Your task to perform on an android device: install app "Fetch Rewards" Image 0: 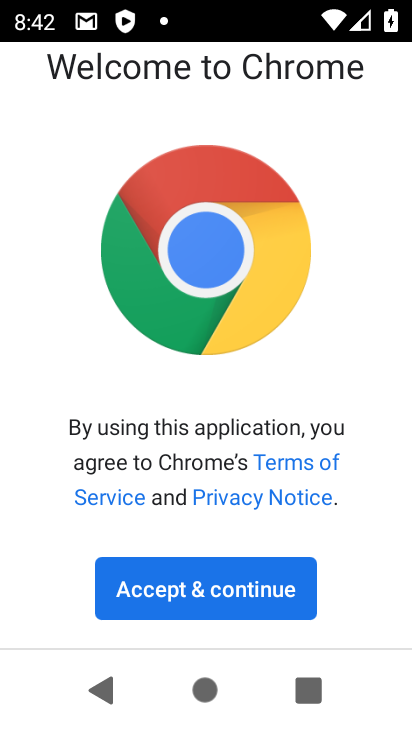
Step 0: press back button
Your task to perform on an android device: install app "Fetch Rewards" Image 1: 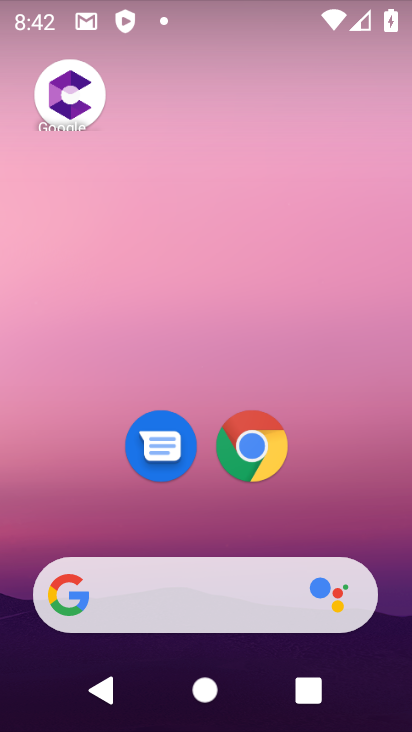
Step 1: drag from (202, 475) to (258, 3)
Your task to perform on an android device: install app "Fetch Rewards" Image 2: 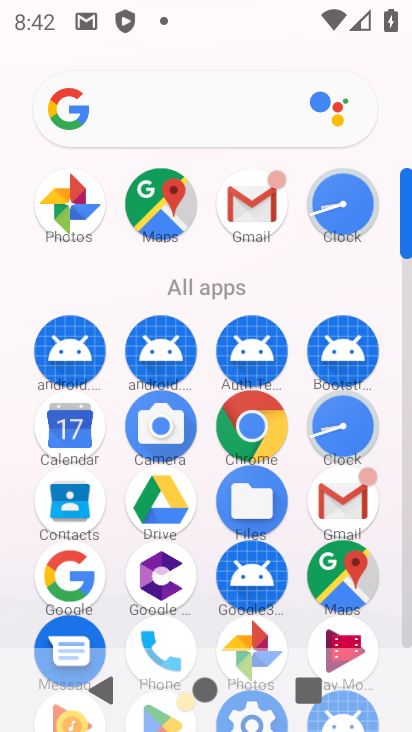
Step 2: drag from (220, 569) to (269, 2)
Your task to perform on an android device: install app "Fetch Rewards" Image 3: 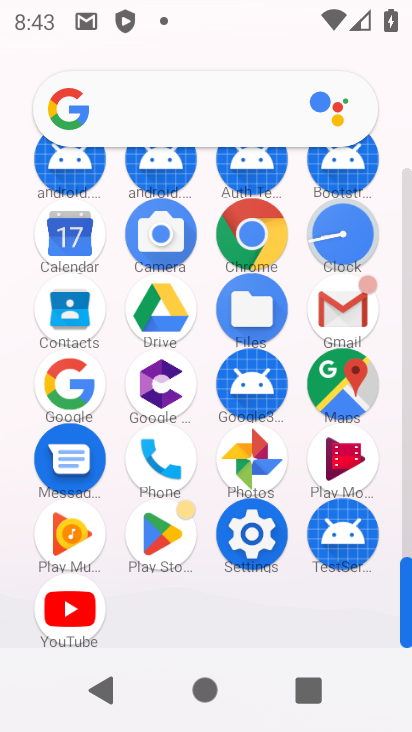
Step 3: click (172, 536)
Your task to perform on an android device: install app "Fetch Rewards" Image 4: 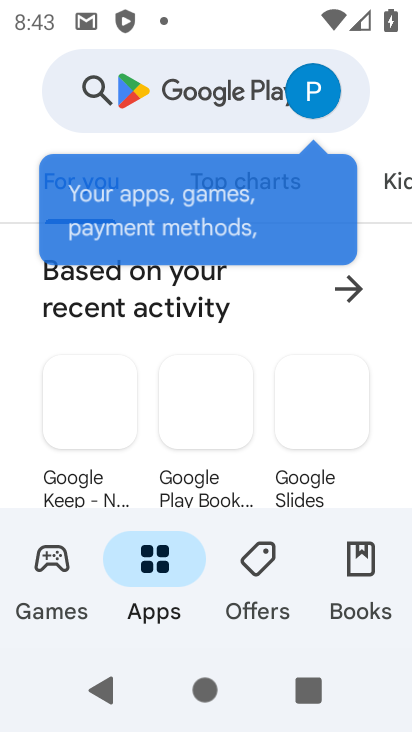
Step 4: click (207, 96)
Your task to perform on an android device: install app "Fetch Rewards" Image 5: 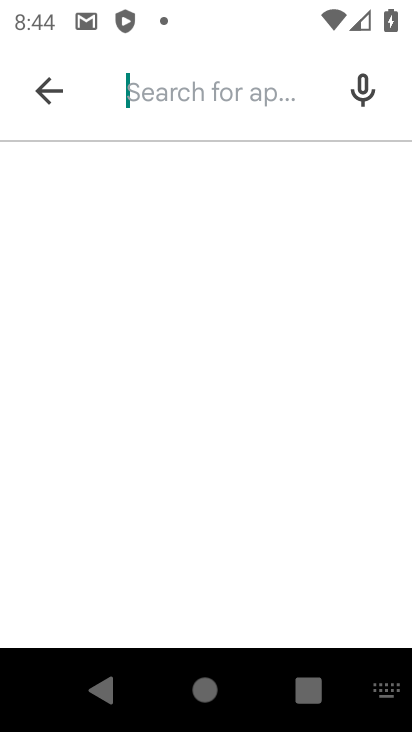
Step 5: type "fetch rewards"
Your task to perform on an android device: install app "Fetch Rewards" Image 6: 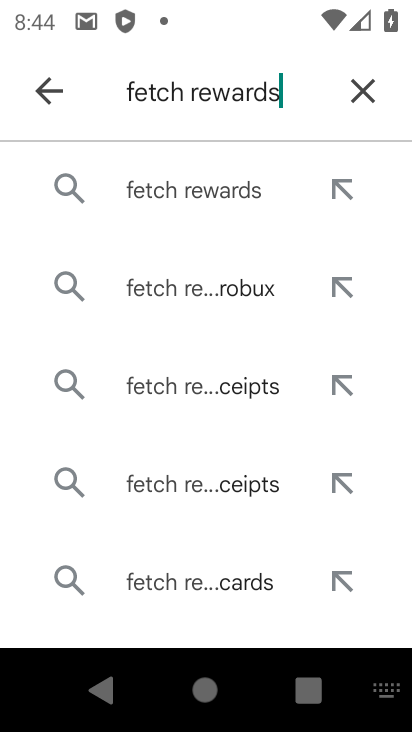
Step 6: click (190, 196)
Your task to perform on an android device: install app "Fetch Rewards" Image 7: 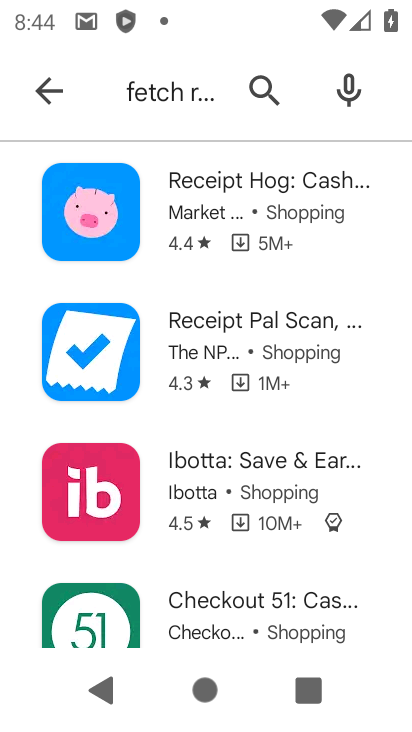
Step 7: task complete